Your task to perform on an android device: turn on the 24-hour format for clock Image 0: 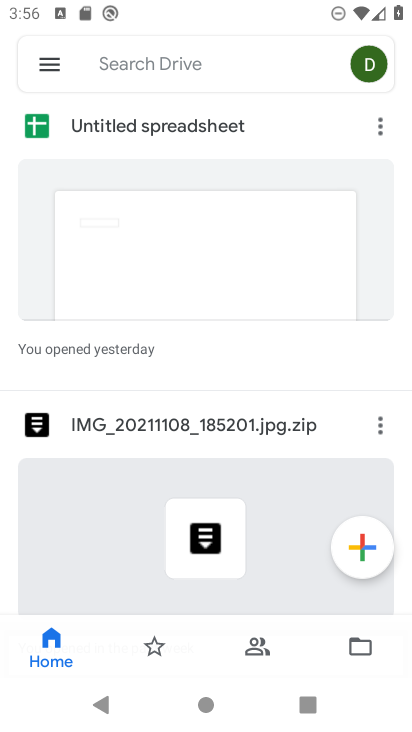
Step 0: press home button
Your task to perform on an android device: turn on the 24-hour format for clock Image 1: 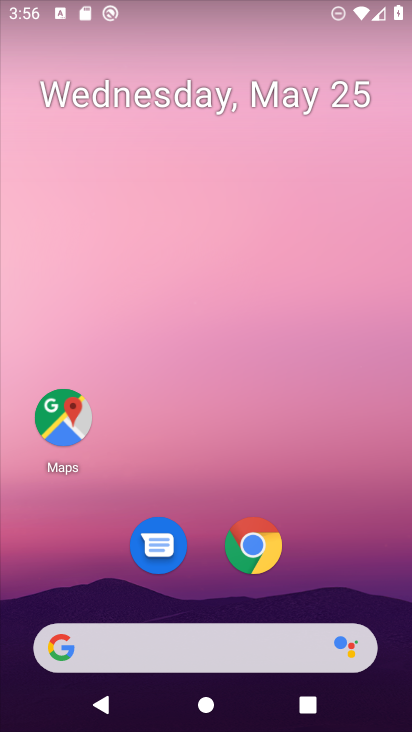
Step 1: drag from (364, 575) to (336, 200)
Your task to perform on an android device: turn on the 24-hour format for clock Image 2: 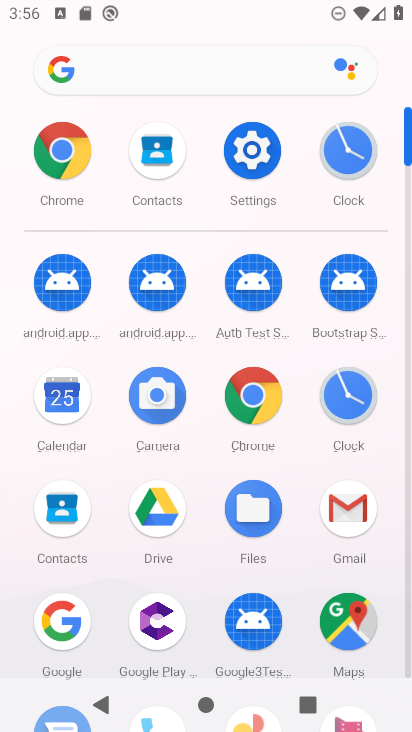
Step 2: click (352, 414)
Your task to perform on an android device: turn on the 24-hour format for clock Image 3: 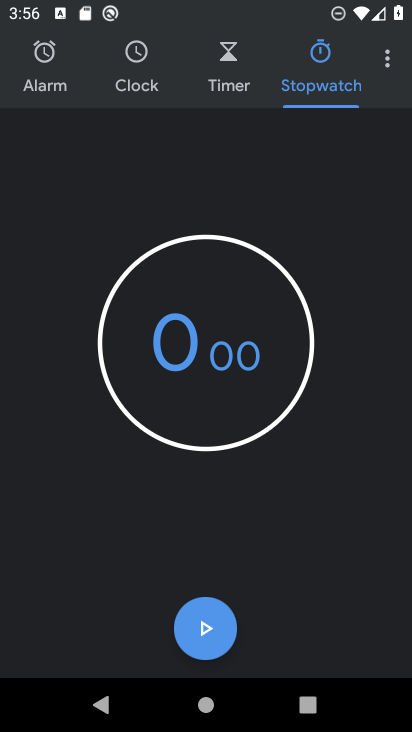
Step 3: task complete